Your task to perform on an android device: Open Amazon Image 0: 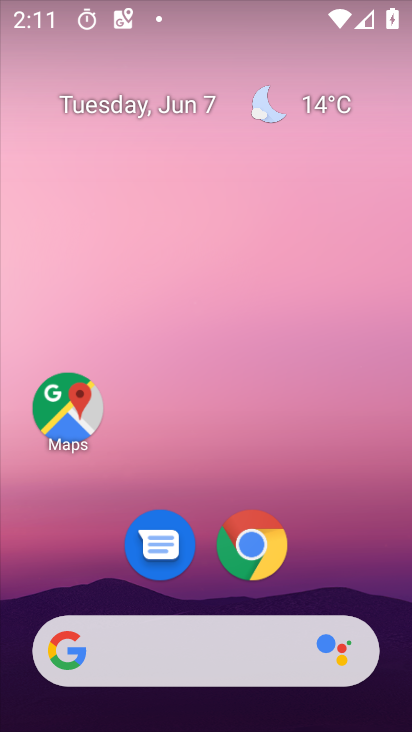
Step 0: click (263, 545)
Your task to perform on an android device: Open Amazon Image 1: 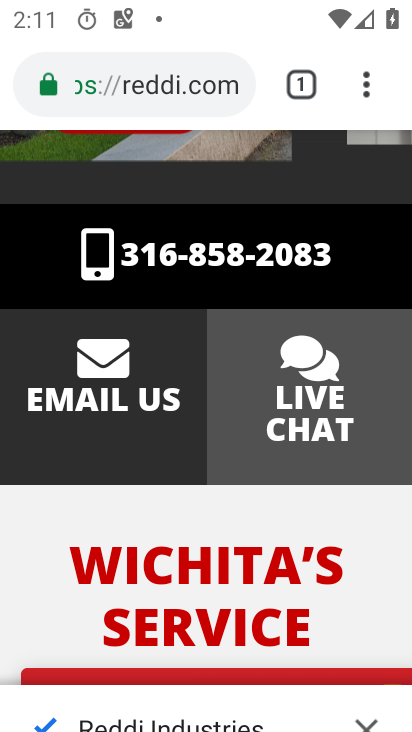
Step 1: click (297, 84)
Your task to perform on an android device: Open Amazon Image 2: 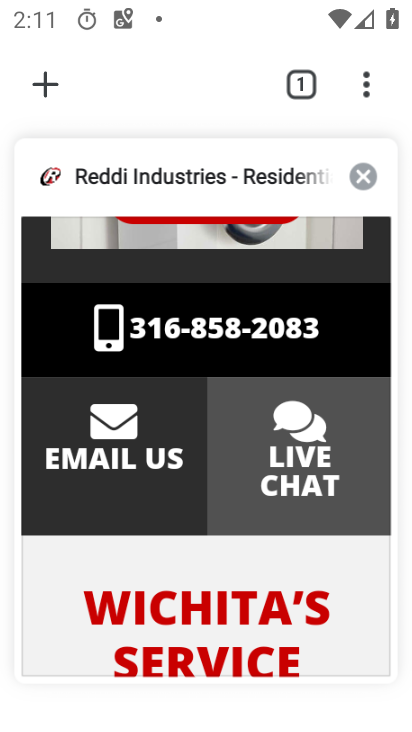
Step 2: click (32, 79)
Your task to perform on an android device: Open Amazon Image 3: 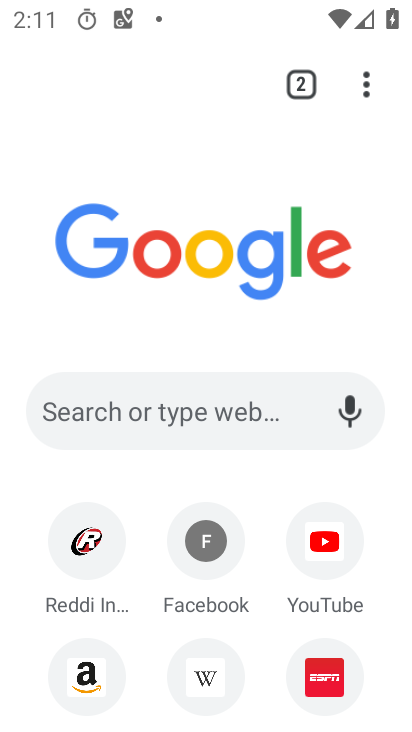
Step 3: click (86, 682)
Your task to perform on an android device: Open Amazon Image 4: 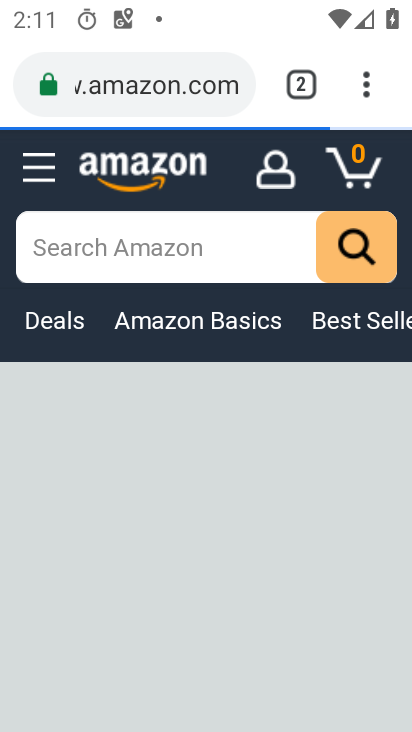
Step 4: task complete